Your task to perform on an android device: turn off wifi Image 0: 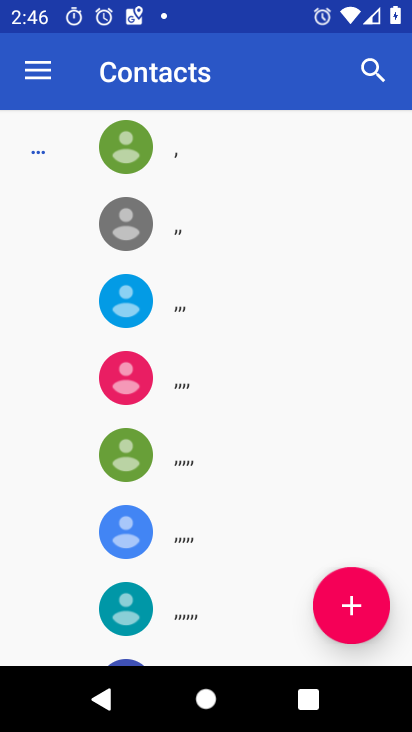
Step 0: press home button
Your task to perform on an android device: turn off wifi Image 1: 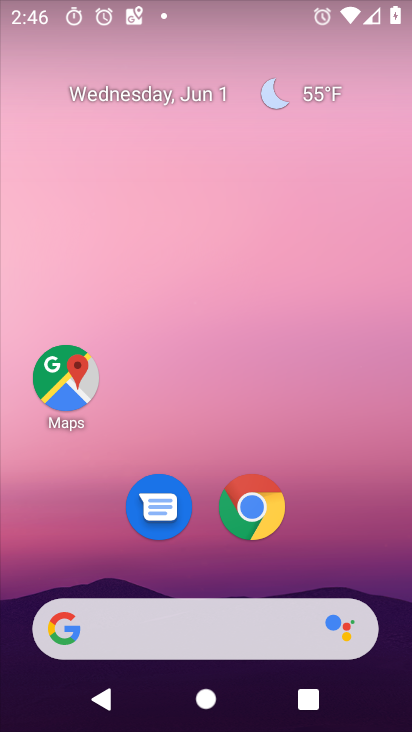
Step 1: drag from (370, 590) to (352, 0)
Your task to perform on an android device: turn off wifi Image 2: 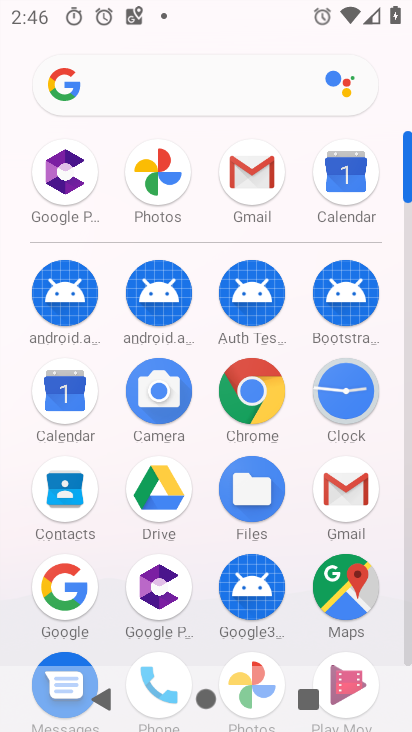
Step 2: click (409, 476)
Your task to perform on an android device: turn off wifi Image 3: 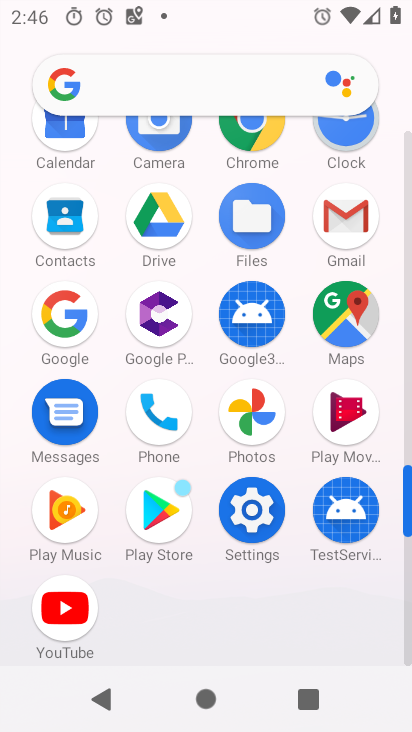
Step 3: click (251, 516)
Your task to perform on an android device: turn off wifi Image 4: 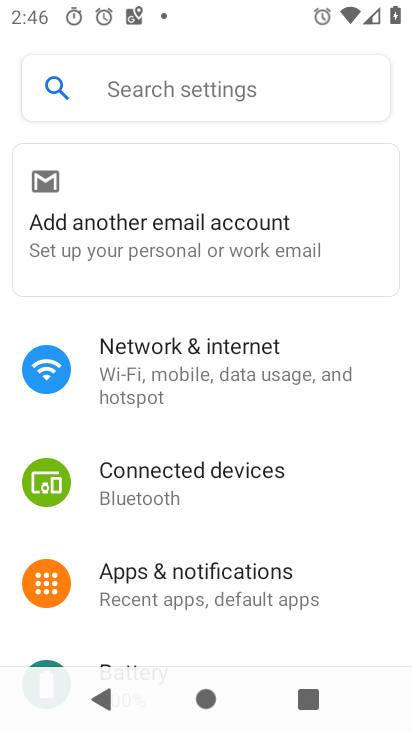
Step 4: click (143, 370)
Your task to perform on an android device: turn off wifi Image 5: 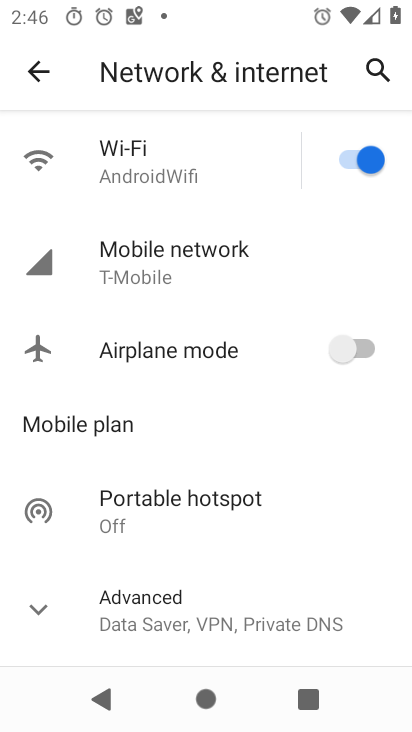
Step 5: click (369, 158)
Your task to perform on an android device: turn off wifi Image 6: 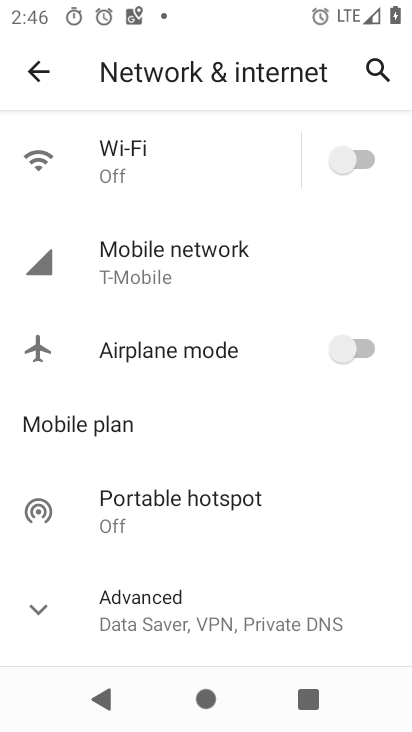
Step 6: task complete